Your task to perform on an android device: What's on my calendar tomorrow? Image 0: 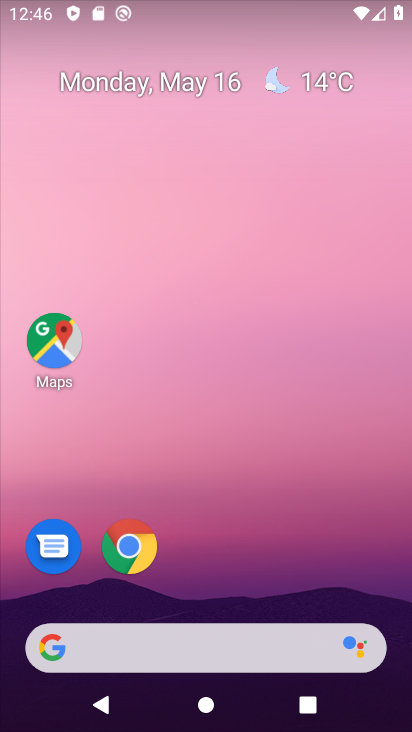
Step 0: drag from (222, 677) to (266, 333)
Your task to perform on an android device: What's on my calendar tomorrow? Image 1: 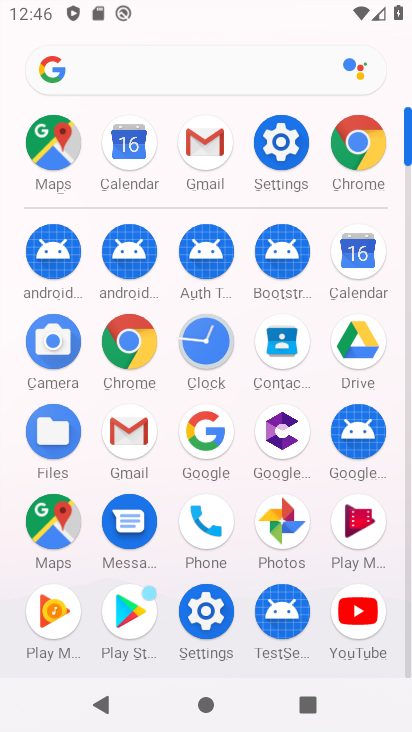
Step 1: click (356, 261)
Your task to perform on an android device: What's on my calendar tomorrow? Image 2: 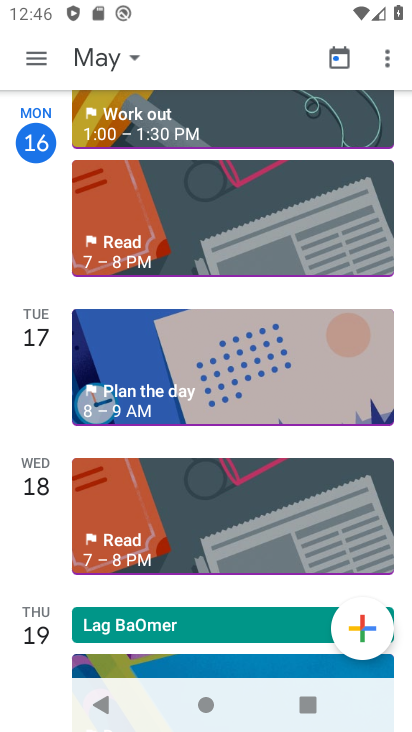
Step 2: task complete